Your task to perform on an android device: toggle show notifications on the lock screen Image 0: 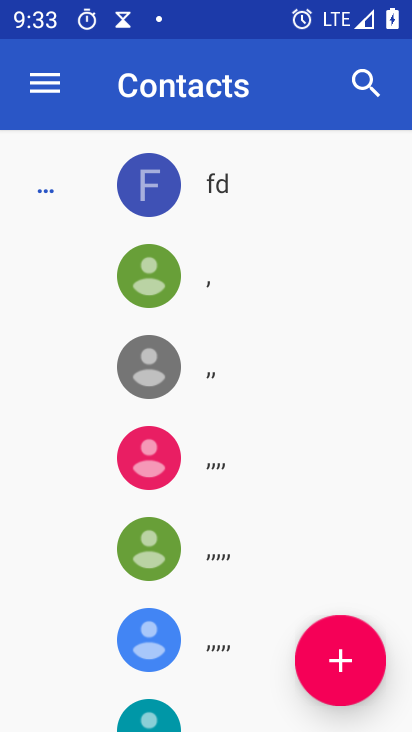
Step 0: press home button
Your task to perform on an android device: toggle show notifications on the lock screen Image 1: 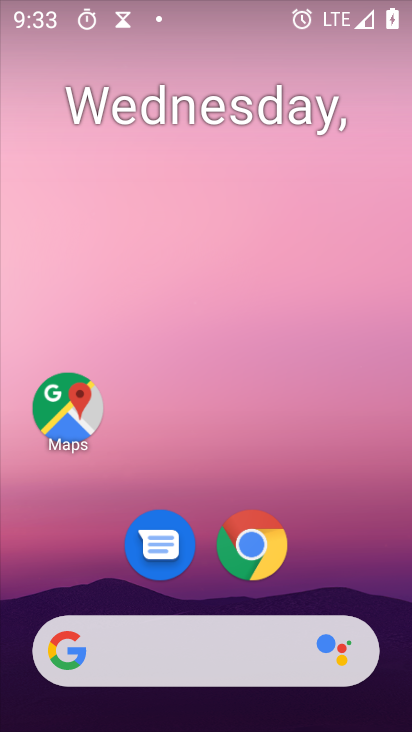
Step 1: drag from (282, 366) to (340, 40)
Your task to perform on an android device: toggle show notifications on the lock screen Image 2: 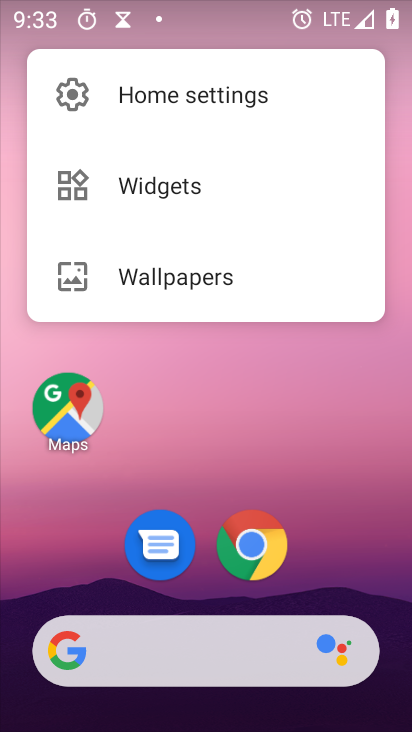
Step 2: drag from (160, 659) to (347, 145)
Your task to perform on an android device: toggle show notifications on the lock screen Image 3: 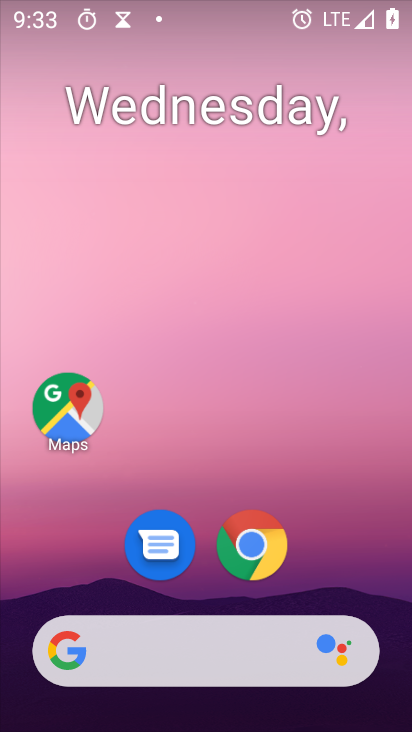
Step 3: drag from (182, 643) to (290, 210)
Your task to perform on an android device: toggle show notifications on the lock screen Image 4: 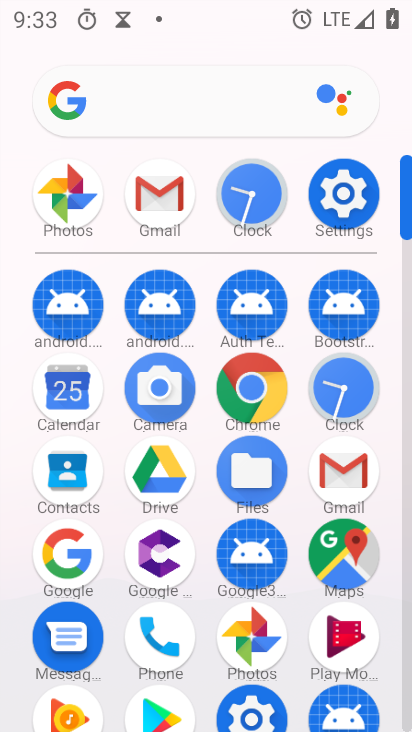
Step 4: click (344, 219)
Your task to perform on an android device: toggle show notifications on the lock screen Image 5: 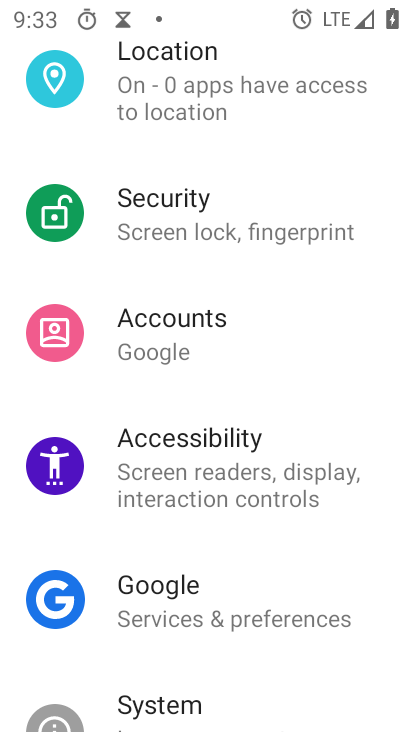
Step 5: drag from (333, 193) to (265, 612)
Your task to perform on an android device: toggle show notifications on the lock screen Image 6: 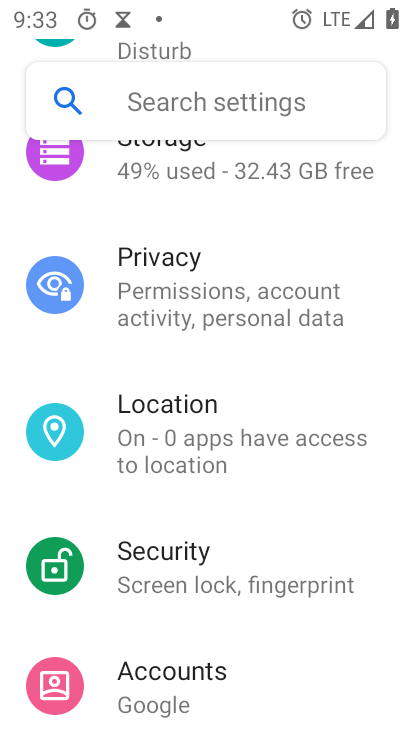
Step 6: drag from (278, 220) to (218, 611)
Your task to perform on an android device: toggle show notifications on the lock screen Image 7: 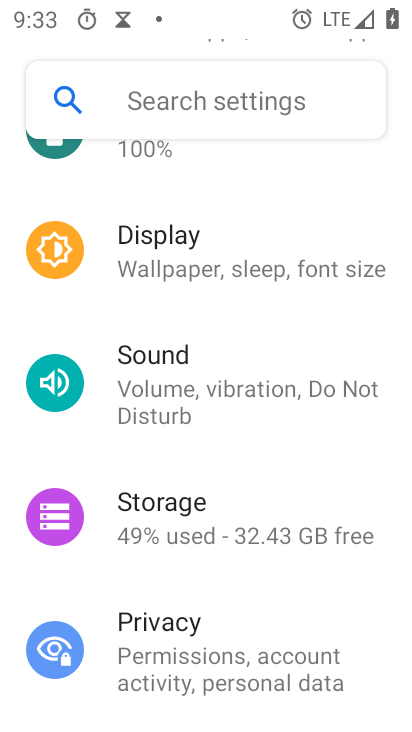
Step 7: drag from (282, 182) to (249, 607)
Your task to perform on an android device: toggle show notifications on the lock screen Image 8: 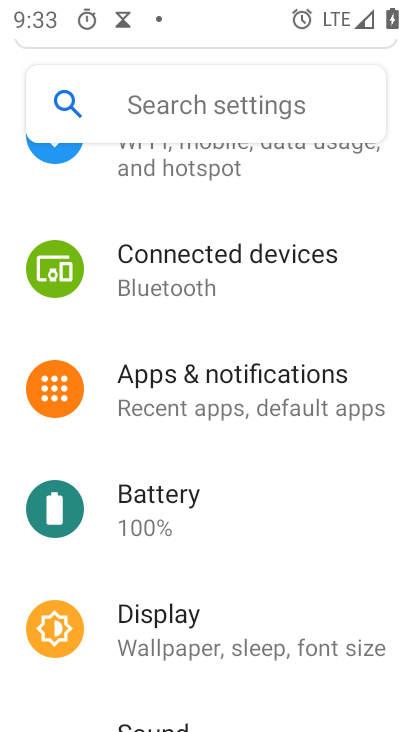
Step 8: click (238, 396)
Your task to perform on an android device: toggle show notifications on the lock screen Image 9: 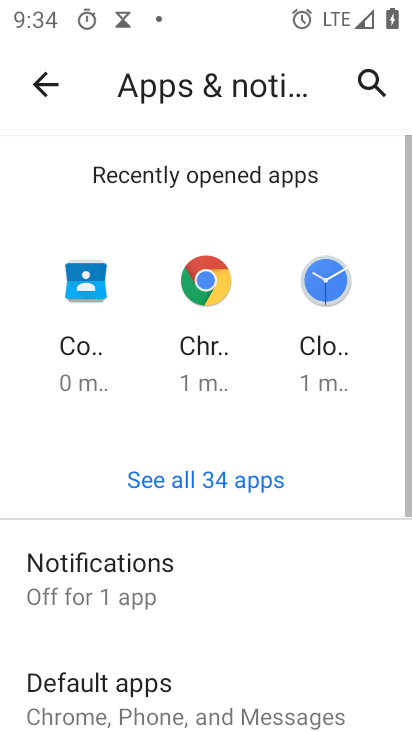
Step 9: click (92, 592)
Your task to perform on an android device: toggle show notifications on the lock screen Image 10: 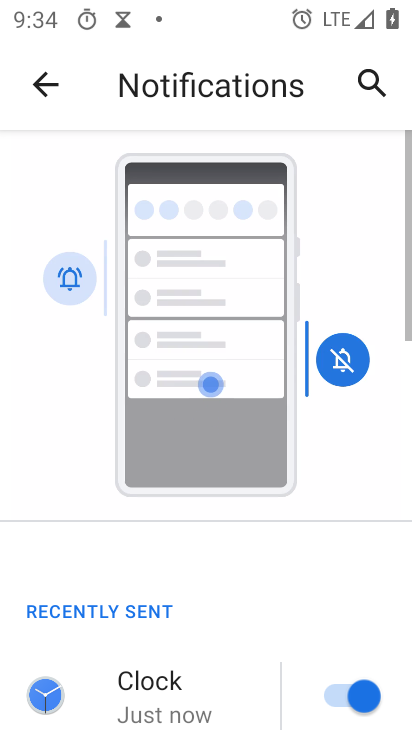
Step 10: drag from (249, 649) to (410, 182)
Your task to perform on an android device: toggle show notifications on the lock screen Image 11: 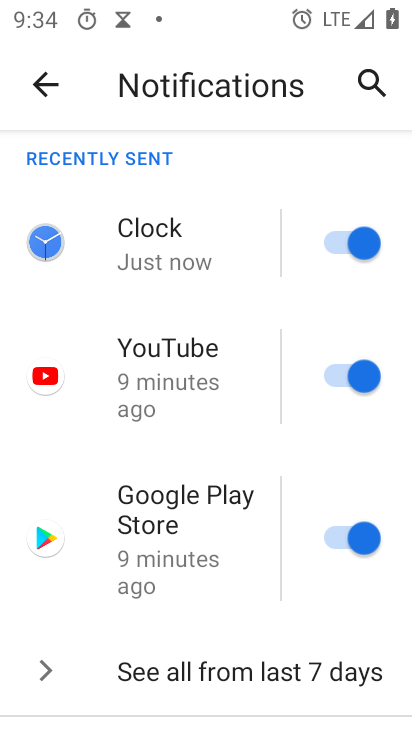
Step 11: drag from (255, 646) to (361, 187)
Your task to perform on an android device: toggle show notifications on the lock screen Image 12: 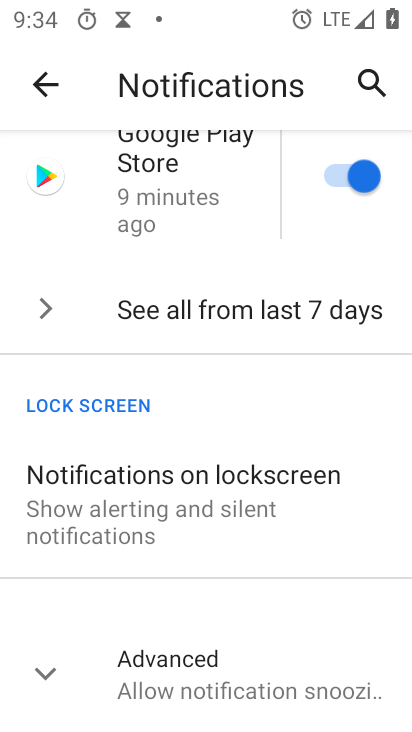
Step 12: click (147, 507)
Your task to perform on an android device: toggle show notifications on the lock screen Image 13: 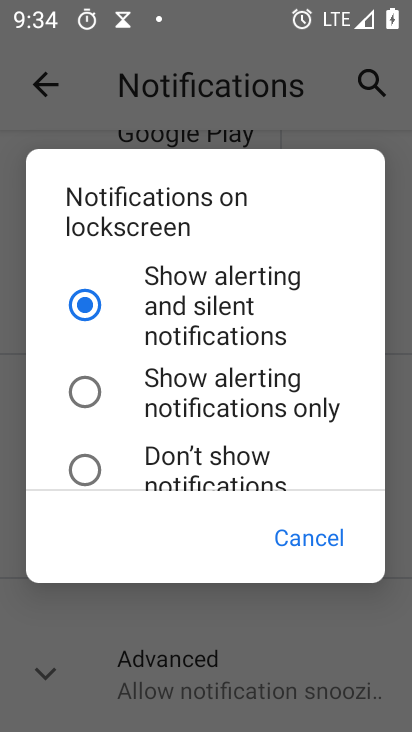
Step 13: click (92, 468)
Your task to perform on an android device: toggle show notifications on the lock screen Image 14: 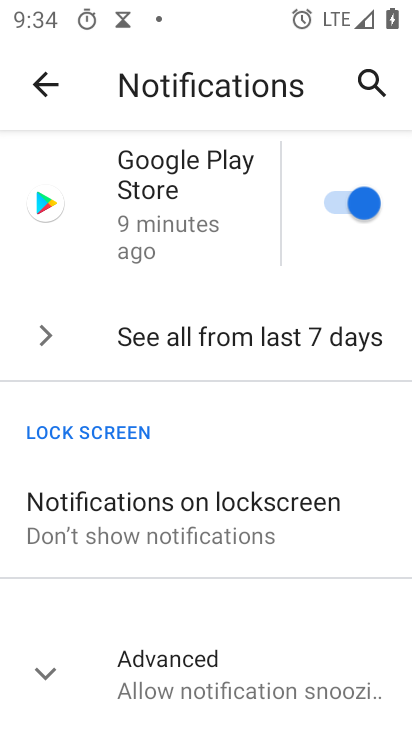
Step 14: task complete